Your task to perform on an android device: turn off notifications in google photos Image 0: 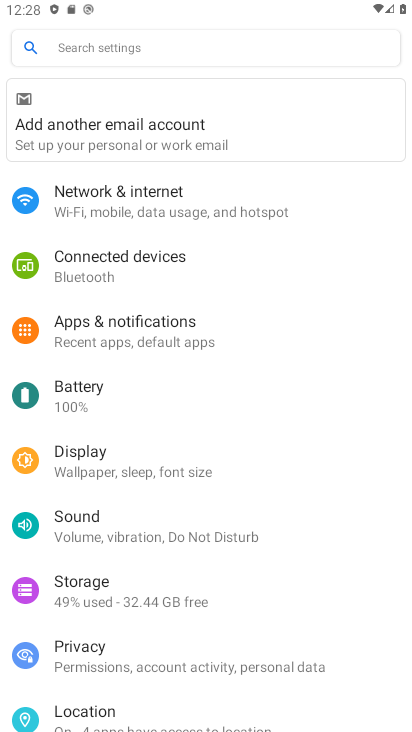
Step 0: press home button
Your task to perform on an android device: turn off notifications in google photos Image 1: 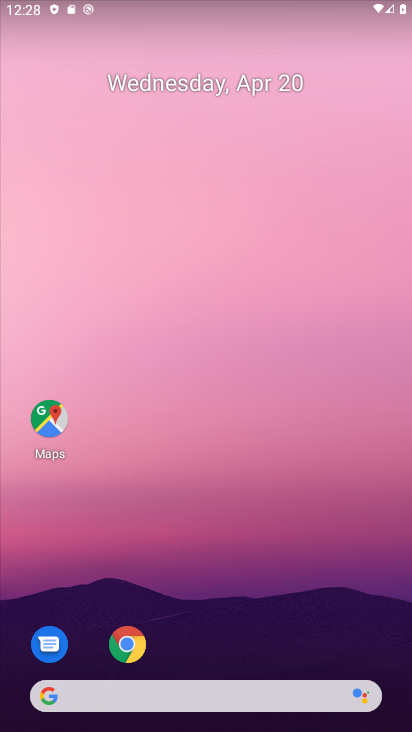
Step 1: drag from (249, 655) to (288, 38)
Your task to perform on an android device: turn off notifications in google photos Image 2: 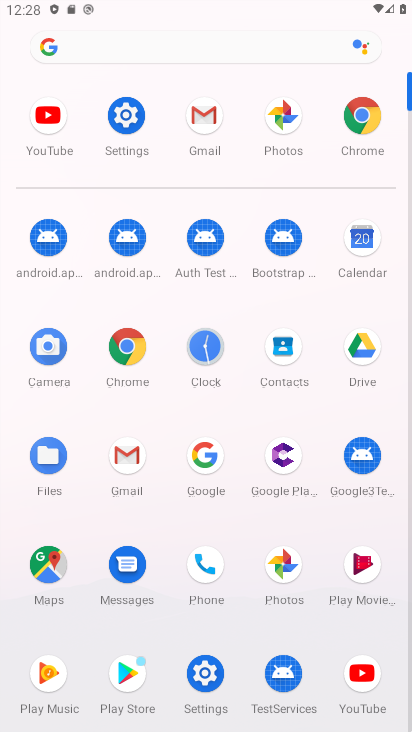
Step 2: click (125, 107)
Your task to perform on an android device: turn off notifications in google photos Image 3: 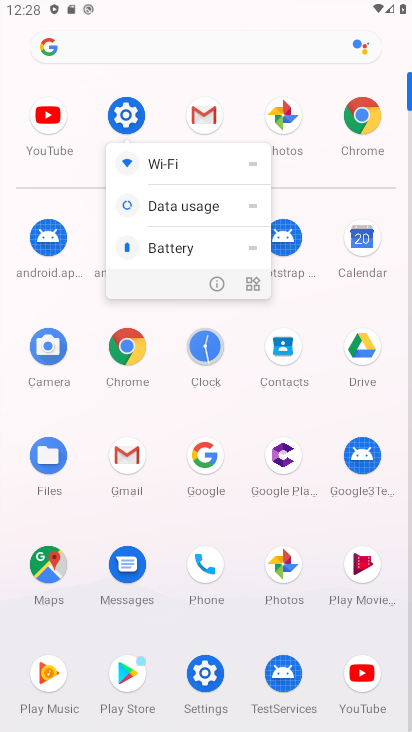
Step 3: click (125, 104)
Your task to perform on an android device: turn off notifications in google photos Image 4: 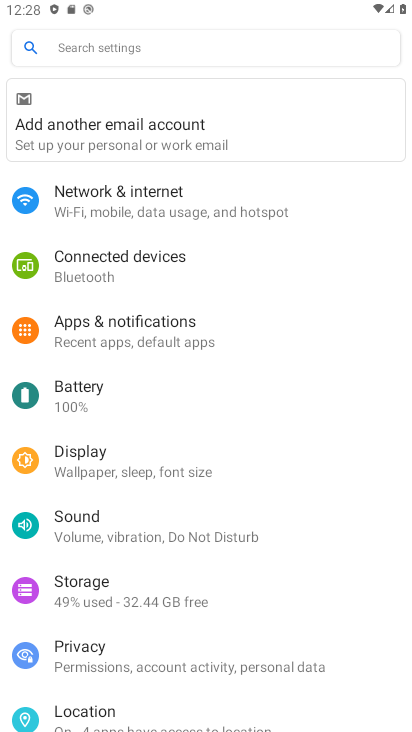
Step 4: click (121, 320)
Your task to perform on an android device: turn off notifications in google photos Image 5: 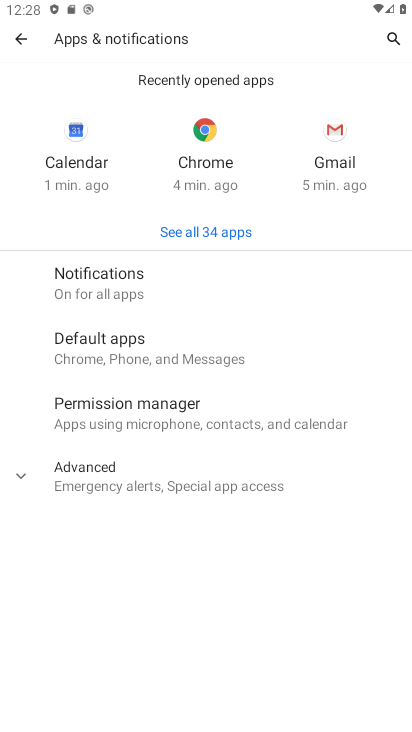
Step 5: click (211, 227)
Your task to perform on an android device: turn off notifications in google photos Image 6: 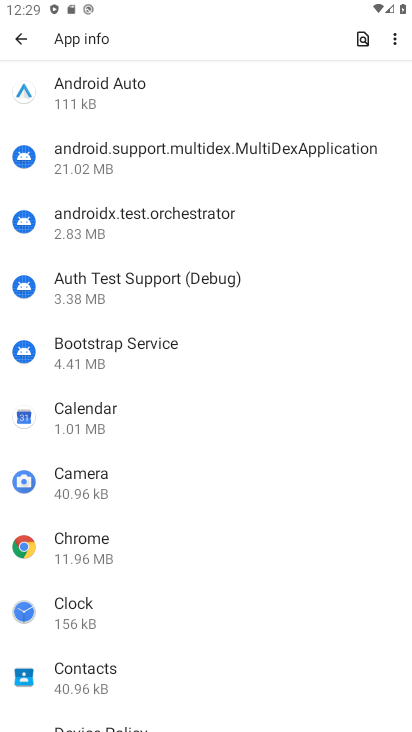
Step 6: drag from (199, 652) to (226, 82)
Your task to perform on an android device: turn off notifications in google photos Image 7: 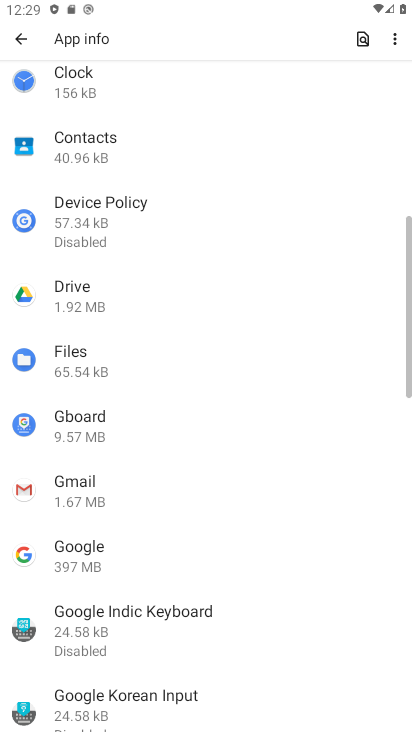
Step 7: drag from (231, 674) to (250, 81)
Your task to perform on an android device: turn off notifications in google photos Image 8: 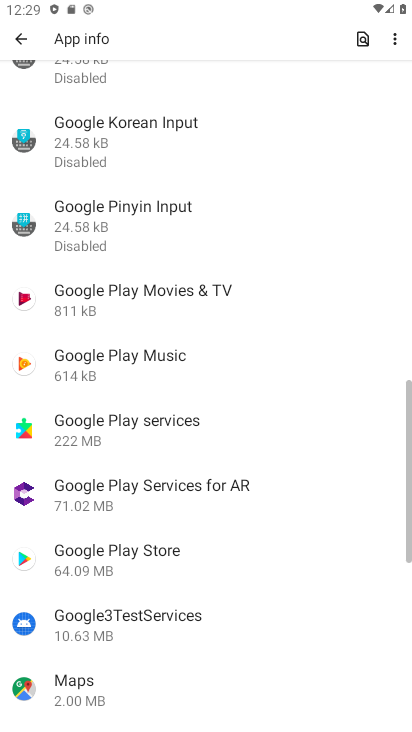
Step 8: drag from (244, 654) to (231, 97)
Your task to perform on an android device: turn off notifications in google photos Image 9: 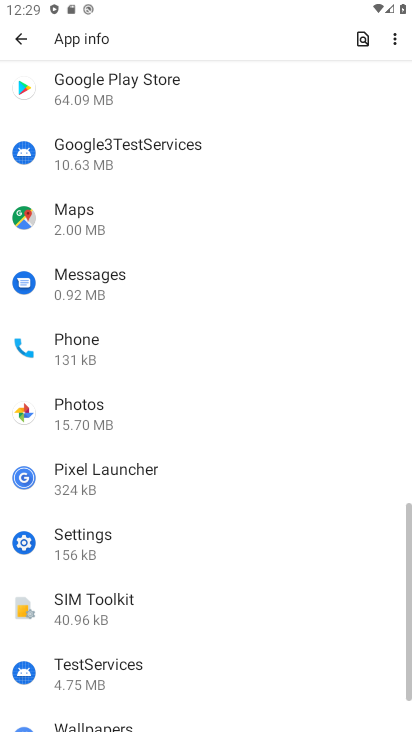
Step 9: click (79, 405)
Your task to perform on an android device: turn off notifications in google photos Image 10: 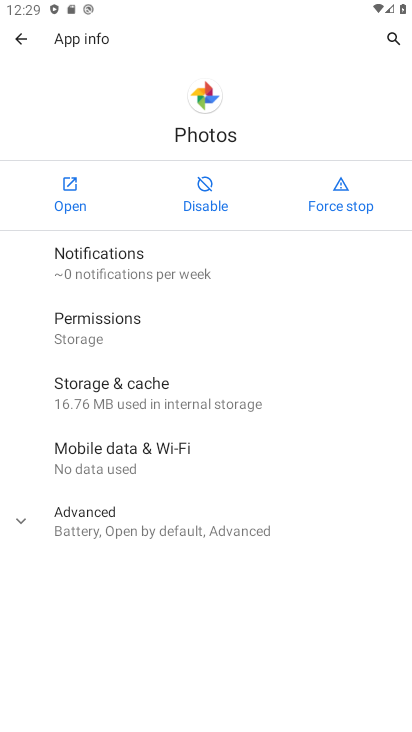
Step 10: click (153, 267)
Your task to perform on an android device: turn off notifications in google photos Image 11: 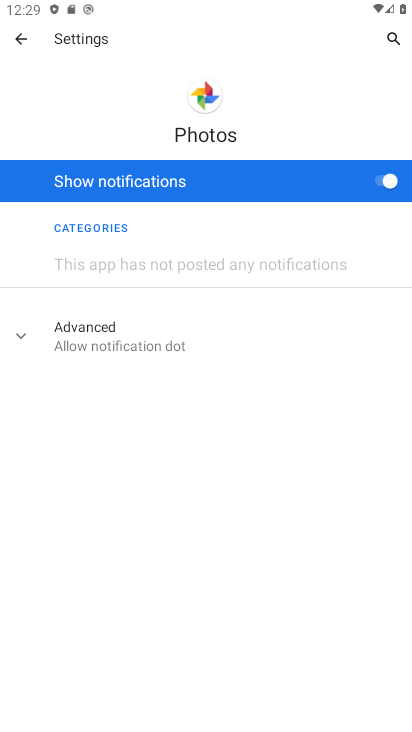
Step 11: click (377, 182)
Your task to perform on an android device: turn off notifications in google photos Image 12: 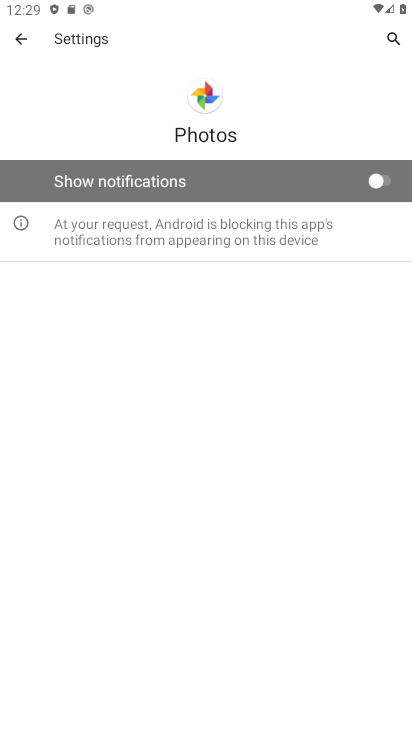
Step 12: task complete